Your task to perform on an android device: Open Reddit.com Image 0: 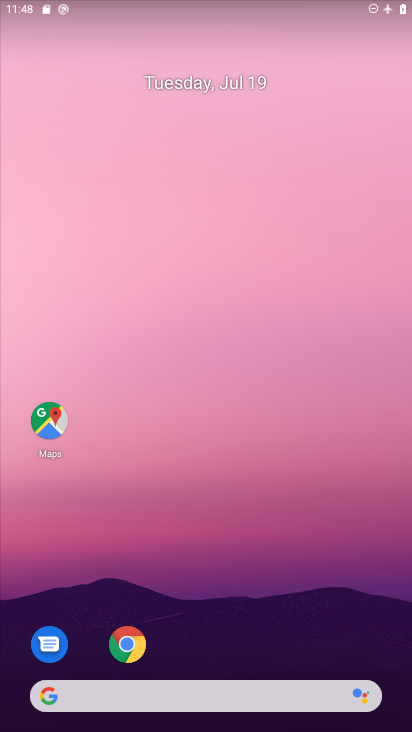
Step 0: drag from (199, 287) to (286, 83)
Your task to perform on an android device: Open Reddit.com Image 1: 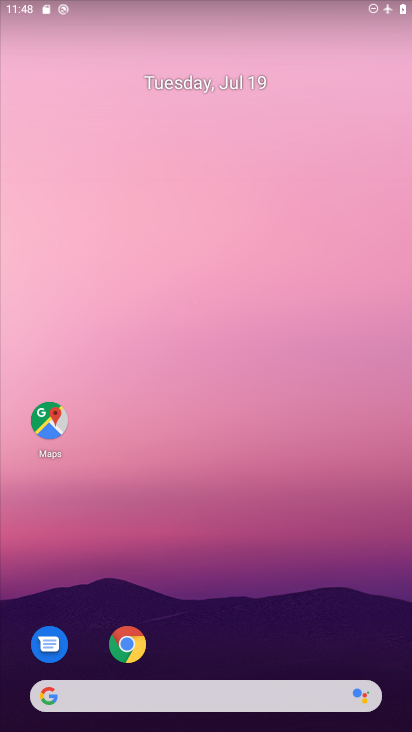
Step 1: drag from (49, 667) to (222, 285)
Your task to perform on an android device: Open Reddit.com Image 2: 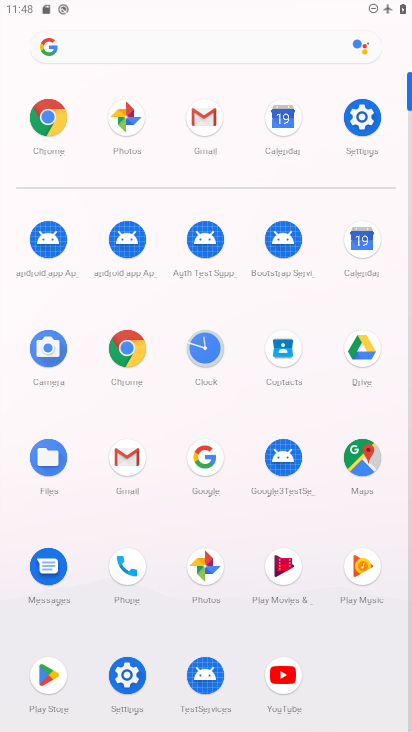
Step 2: click (103, 48)
Your task to perform on an android device: Open Reddit.com Image 3: 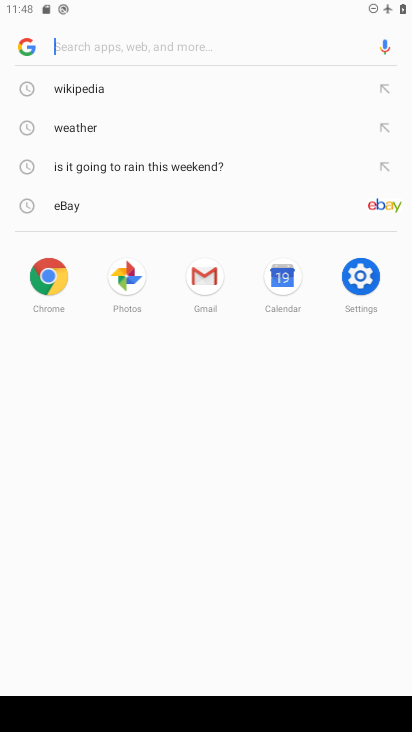
Step 3: type "Reddit.com"
Your task to perform on an android device: Open Reddit.com Image 4: 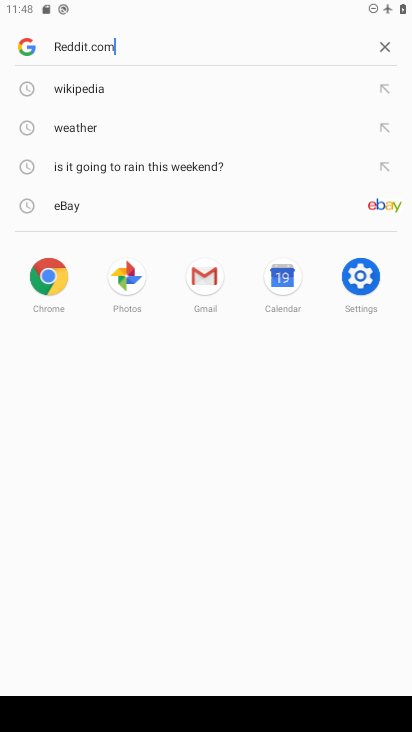
Step 4: type ""
Your task to perform on an android device: Open Reddit.com Image 5: 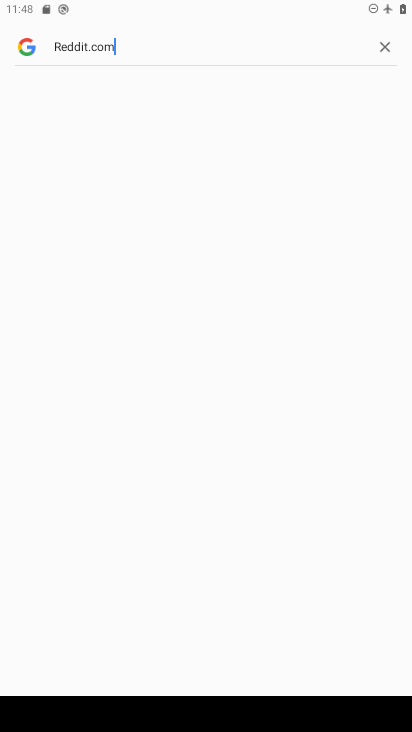
Step 5: type ""
Your task to perform on an android device: Open Reddit.com Image 6: 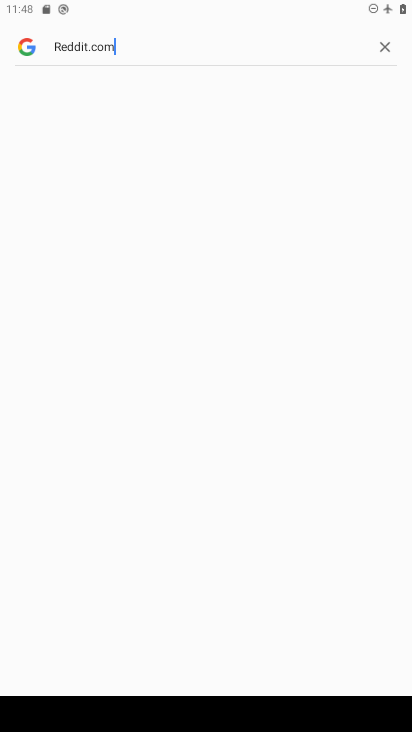
Step 6: task complete